Your task to perform on an android device: set default search engine in the chrome app Image 0: 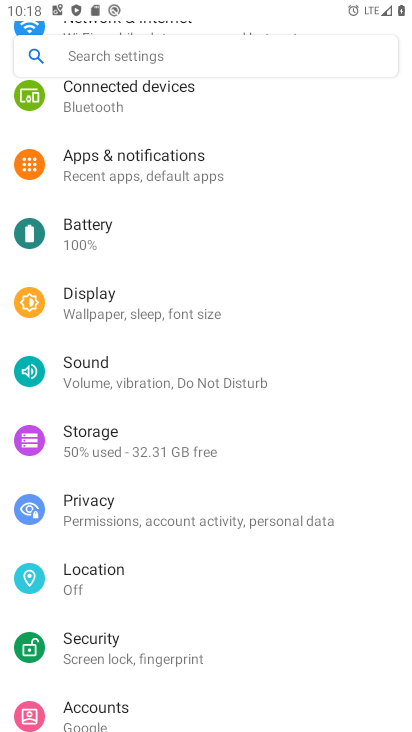
Step 0: press home button
Your task to perform on an android device: set default search engine in the chrome app Image 1: 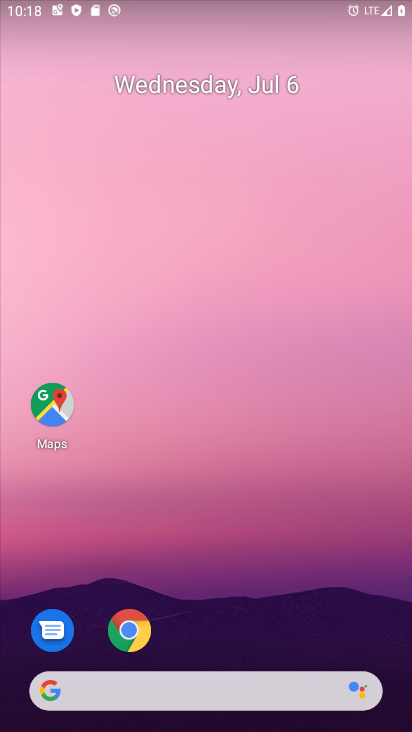
Step 1: click (125, 629)
Your task to perform on an android device: set default search engine in the chrome app Image 2: 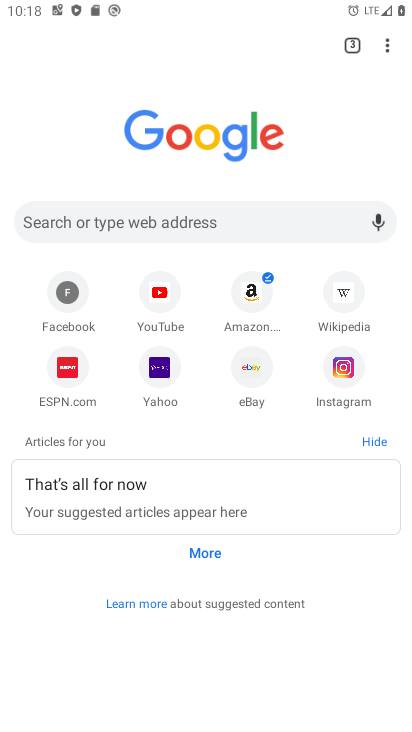
Step 2: click (392, 48)
Your task to perform on an android device: set default search engine in the chrome app Image 3: 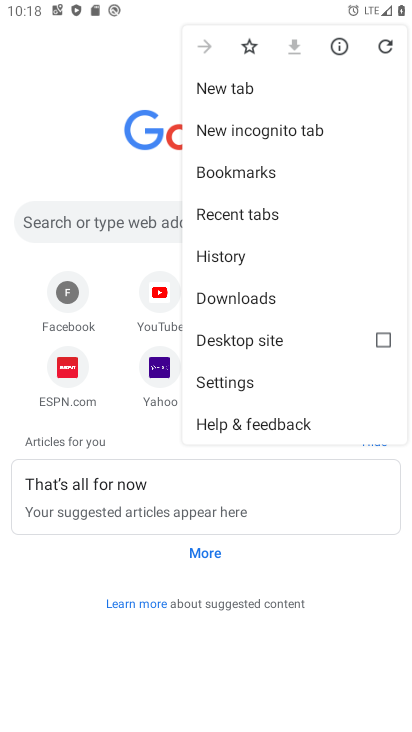
Step 3: click (230, 378)
Your task to perform on an android device: set default search engine in the chrome app Image 4: 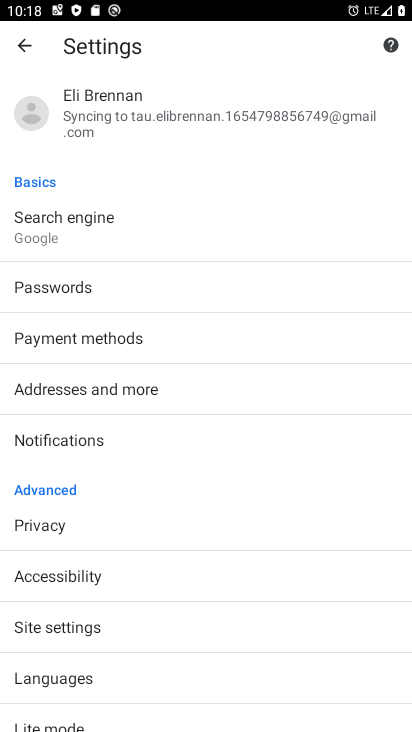
Step 4: click (39, 210)
Your task to perform on an android device: set default search engine in the chrome app Image 5: 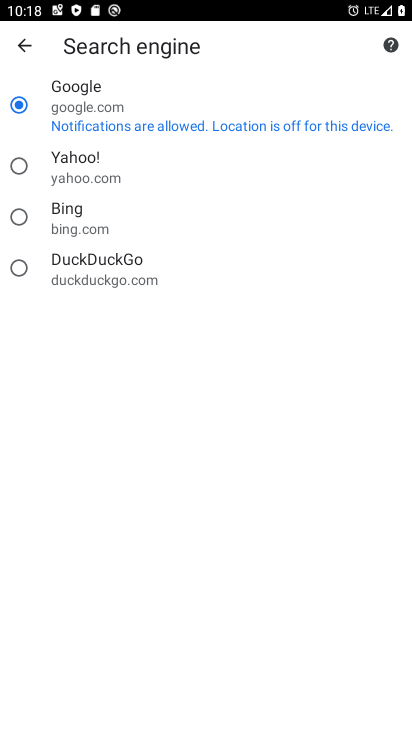
Step 5: click (18, 166)
Your task to perform on an android device: set default search engine in the chrome app Image 6: 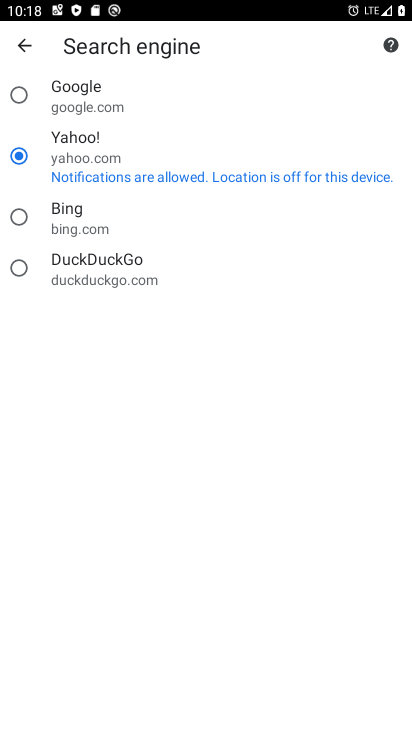
Step 6: task complete